Your task to perform on an android device: Find coffee shops on Maps Image 0: 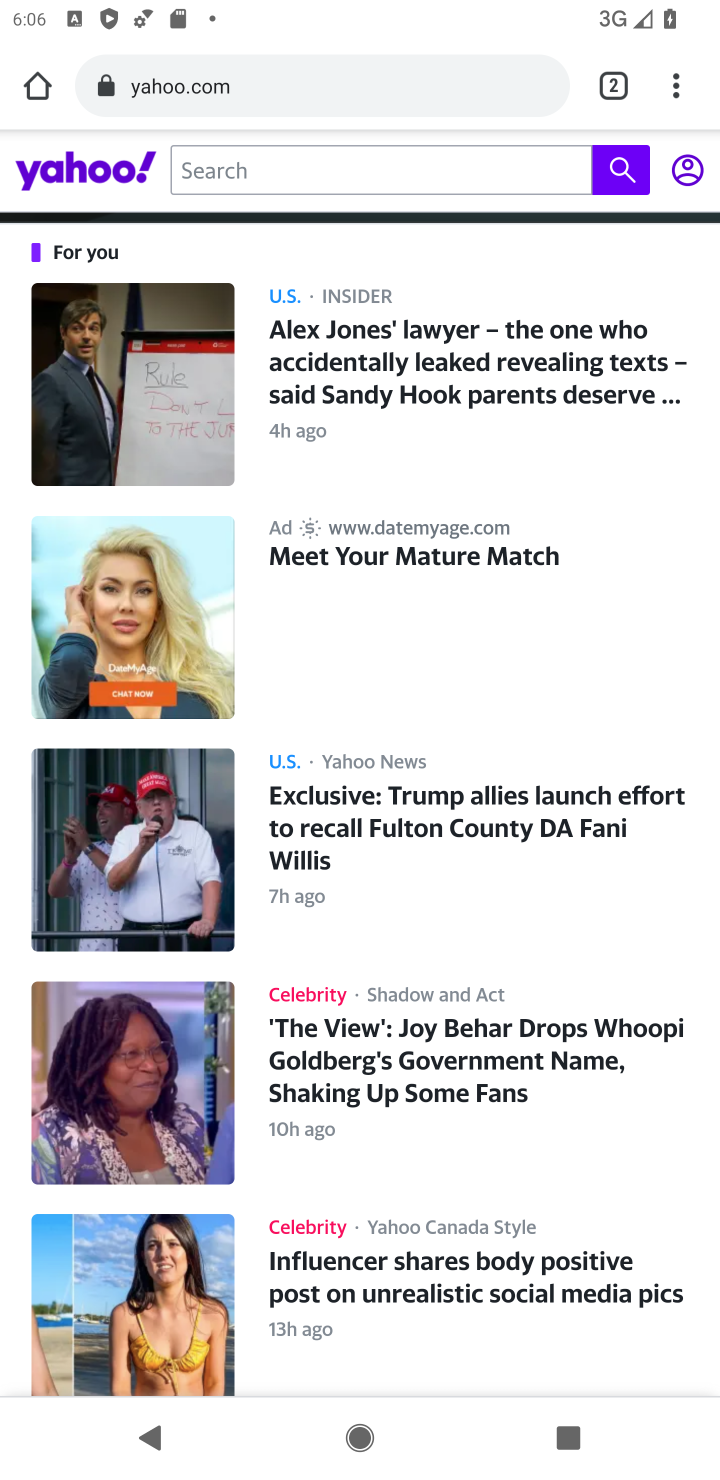
Step 0: press home button
Your task to perform on an android device: Find coffee shops on Maps Image 1: 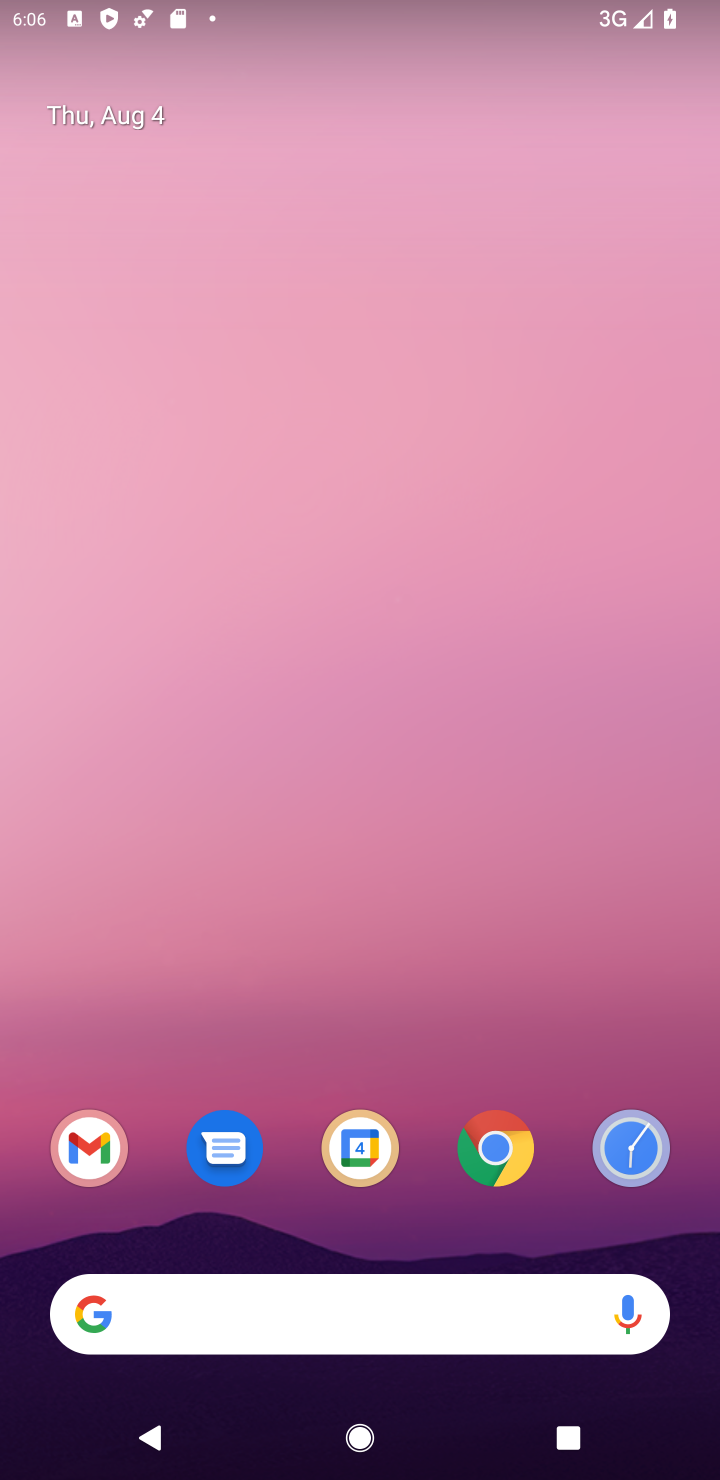
Step 1: drag from (436, 1234) to (457, 107)
Your task to perform on an android device: Find coffee shops on Maps Image 2: 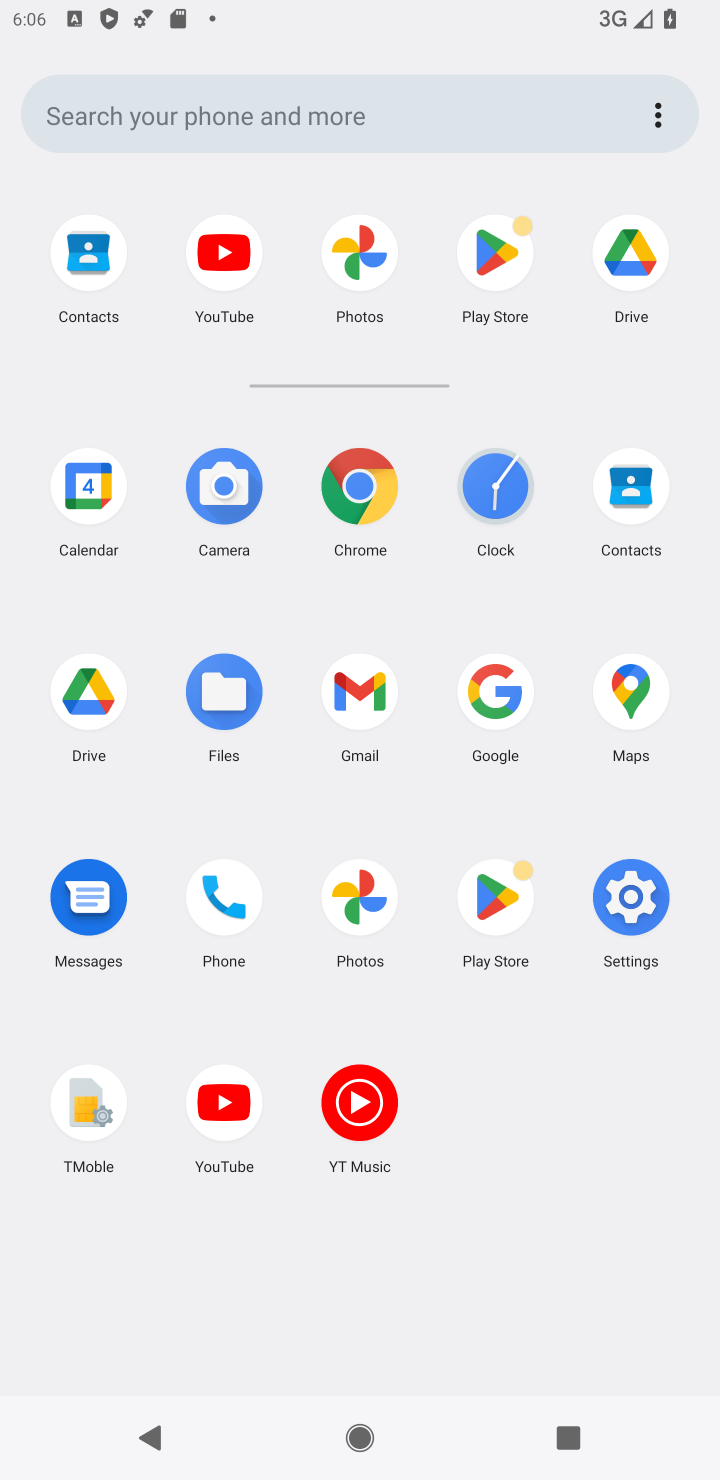
Step 2: click (625, 677)
Your task to perform on an android device: Find coffee shops on Maps Image 3: 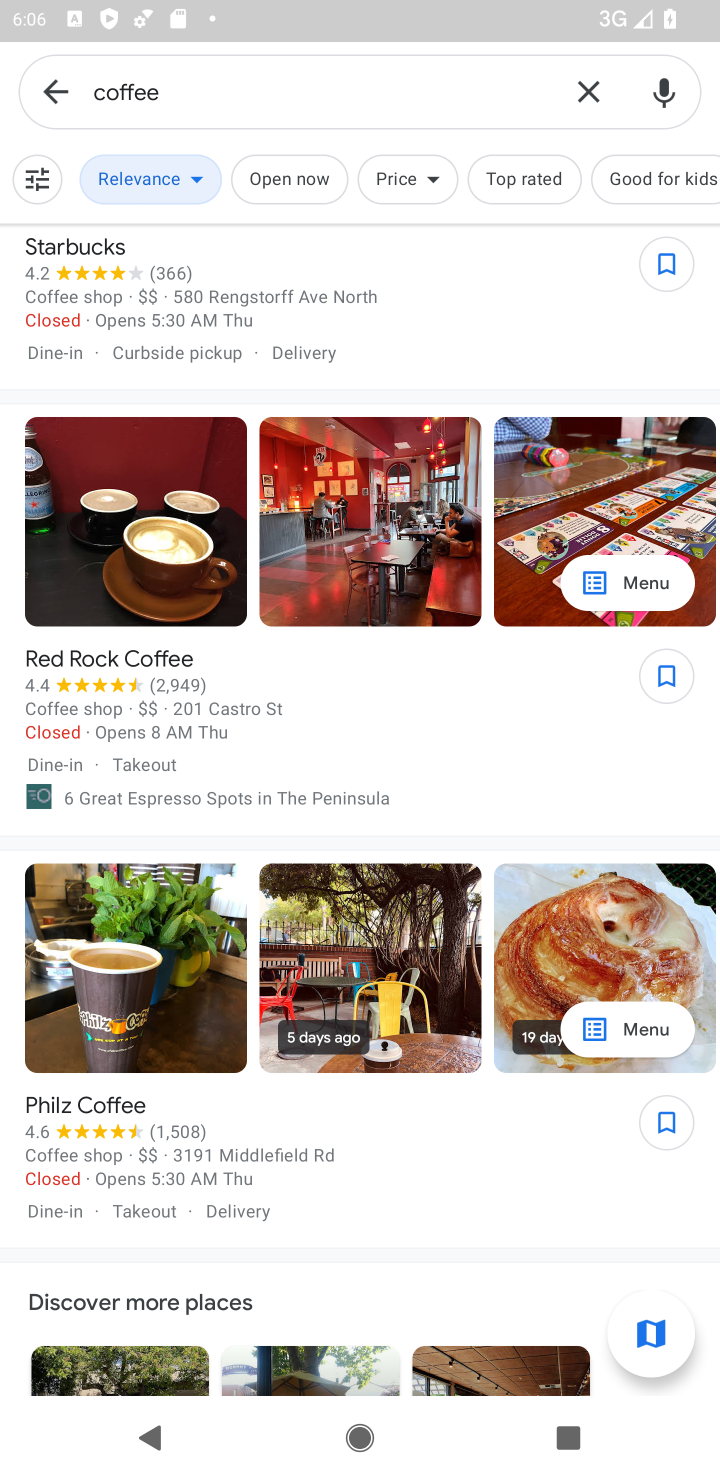
Step 3: click (586, 89)
Your task to perform on an android device: Find coffee shops on Maps Image 4: 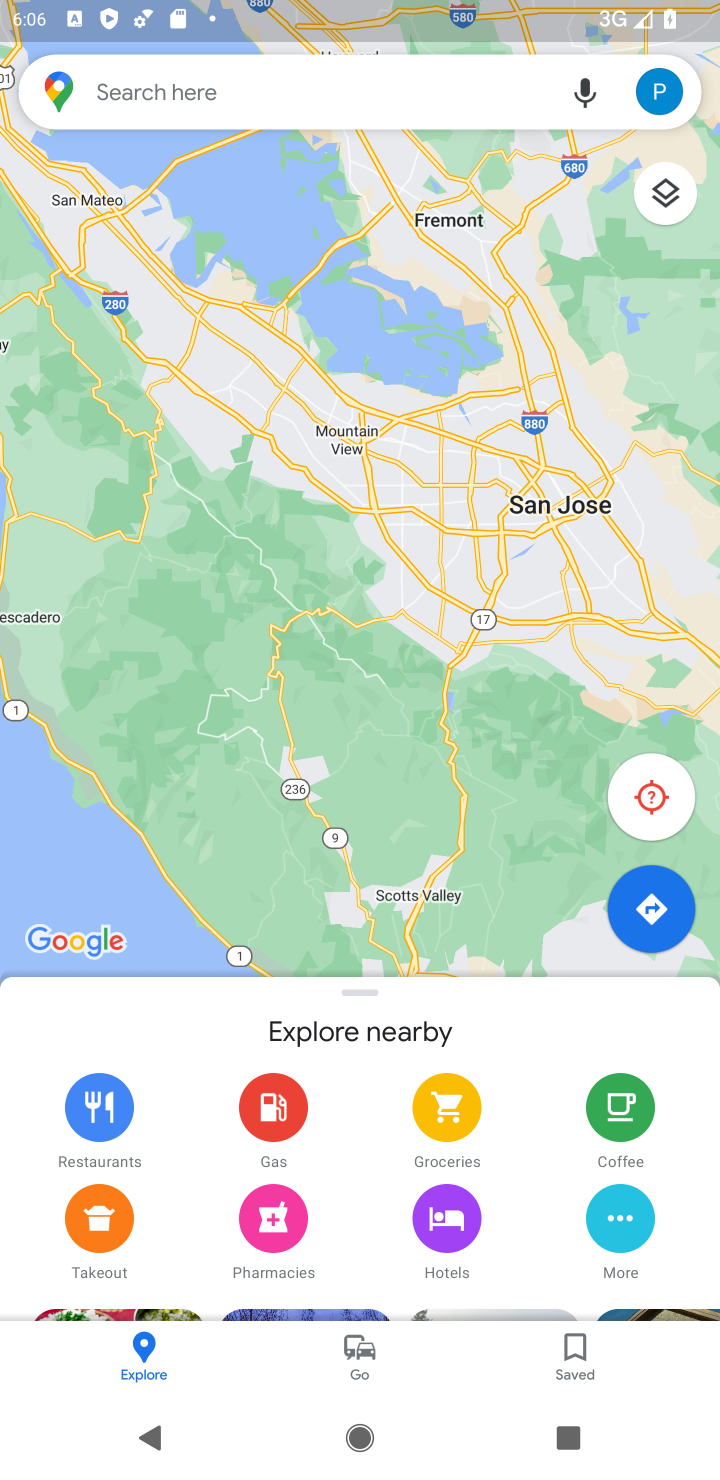
Step 4: click (181, 89)
Your task to perform on an android device: Find coffee shops on Maps Image 5: 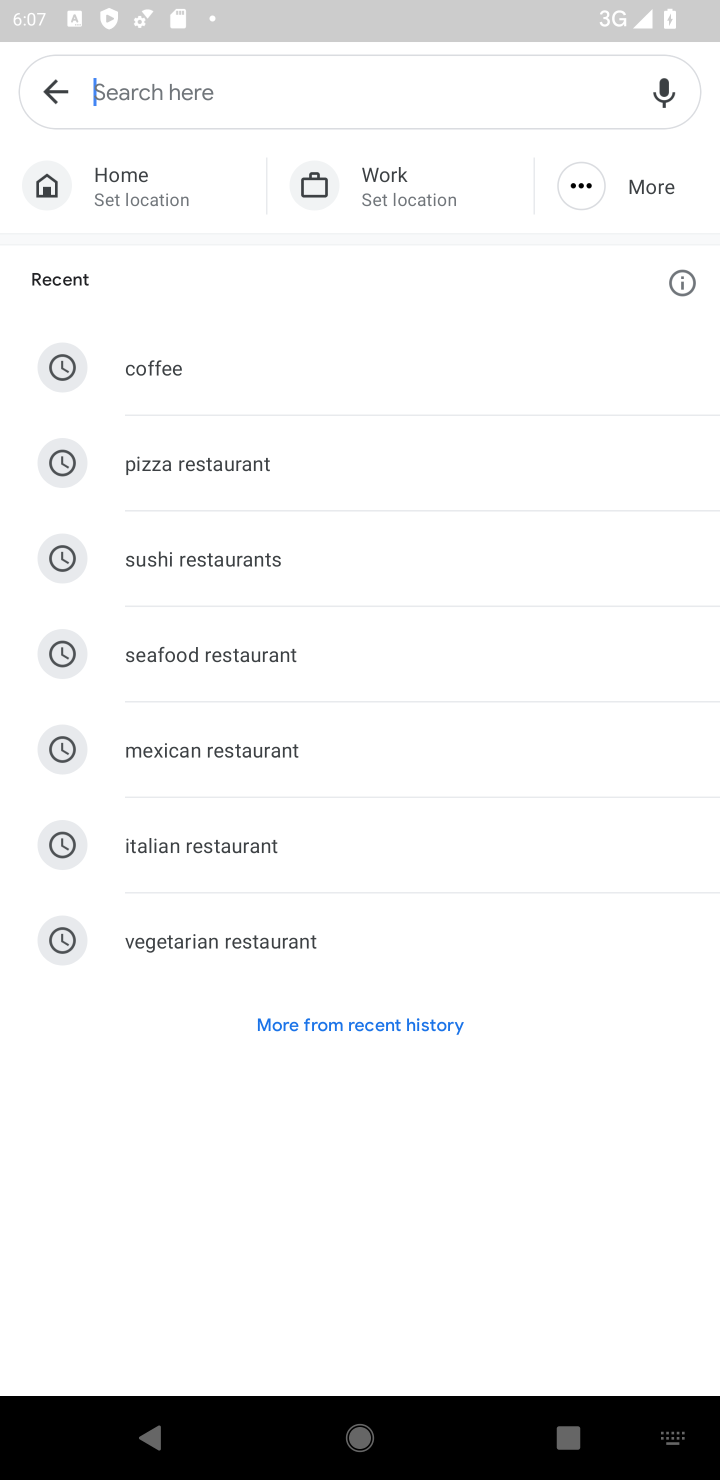
Step 5: type "coffee shops"
Your task to perform on an android device: Find coffee shops on Maps Image 6: 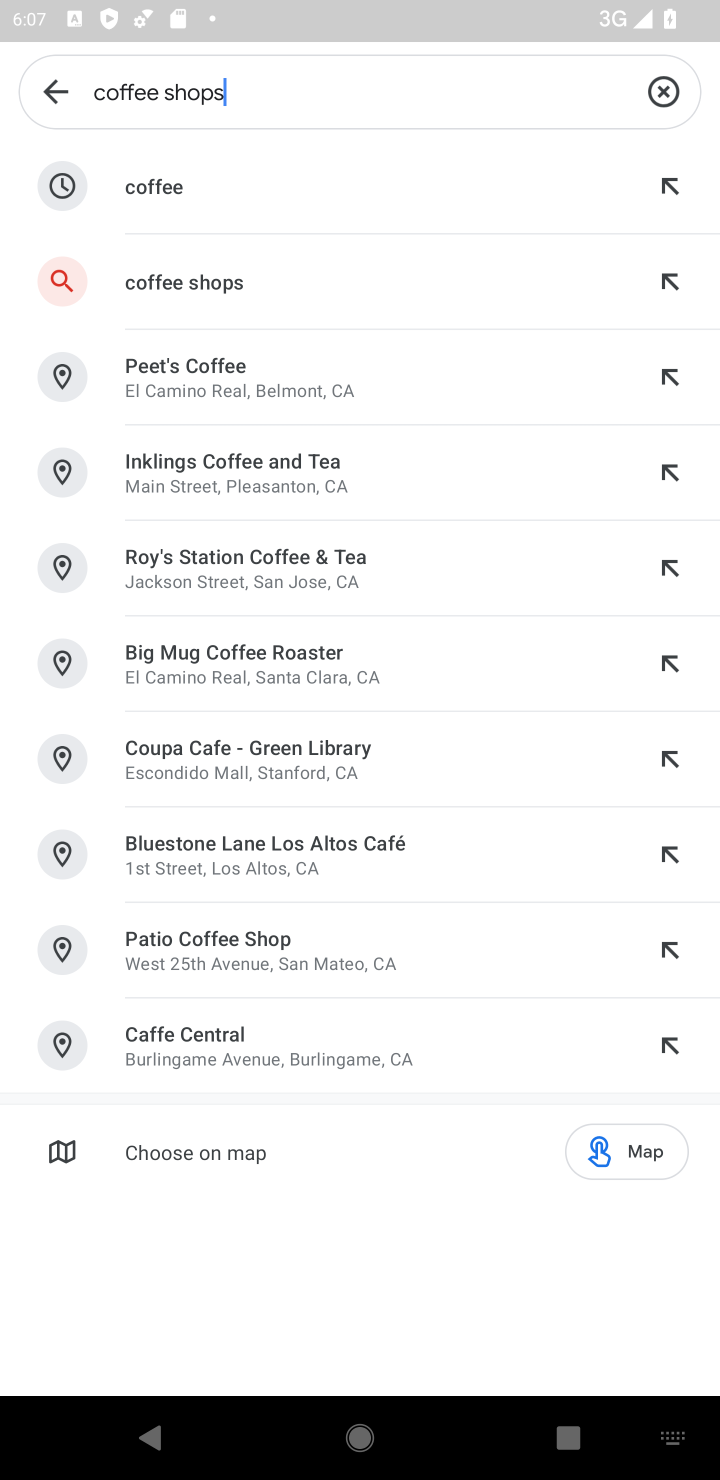
Step 6: click (176, 276)
Your task to perform on an android device: Find coffee shops on Maps Image 7: 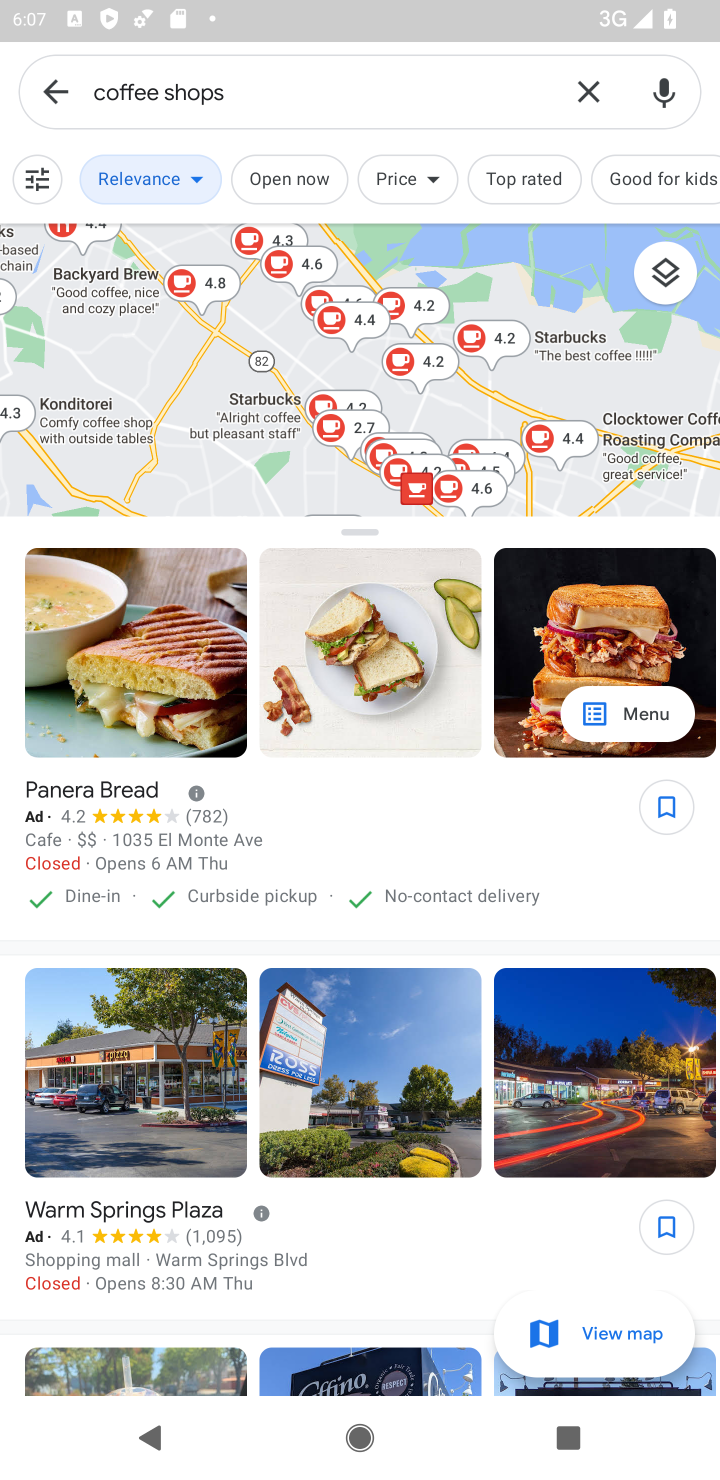
Step 7: task complete